Your task to perform on an android device: Turn off the flashlight Image 0: 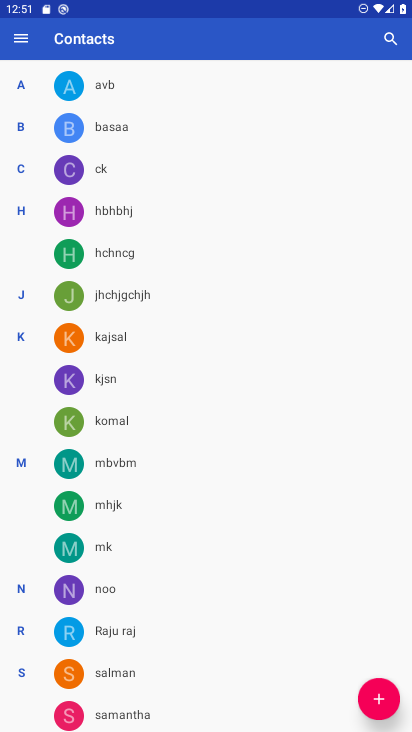
Step 0: press home button
Your task to perform on an android device: Turn off the flashlight Image 1: 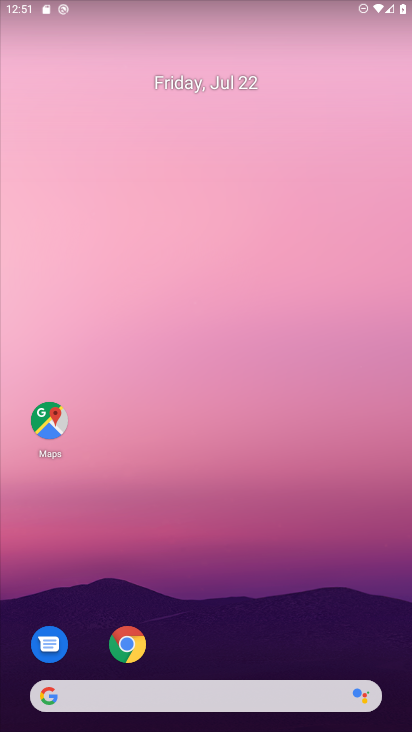
Step 1: drag from (173, 657) to (145, 187)
Your task to perform on an android device: Turn off the flashlight Image 2: 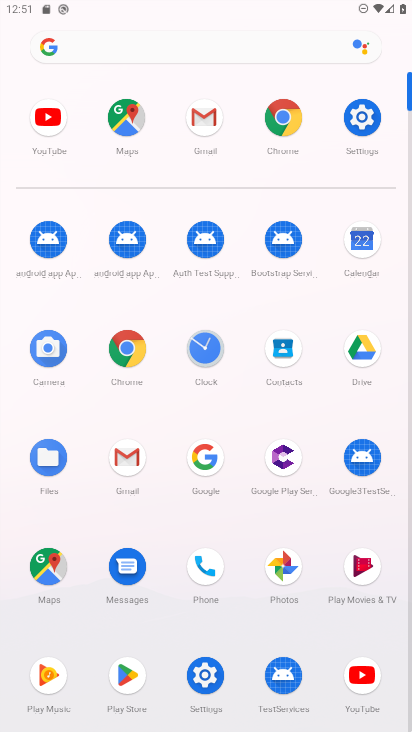
Step 2: click (361, 130)
Your task to perform on an android device: Turn off the flashlight Image 3: 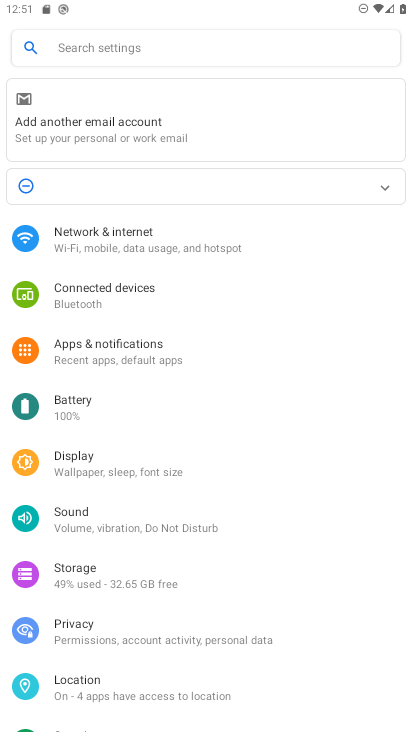
Step 3: task complete